Your task to perform on an android device: see creations saved in the google photos Image 0: 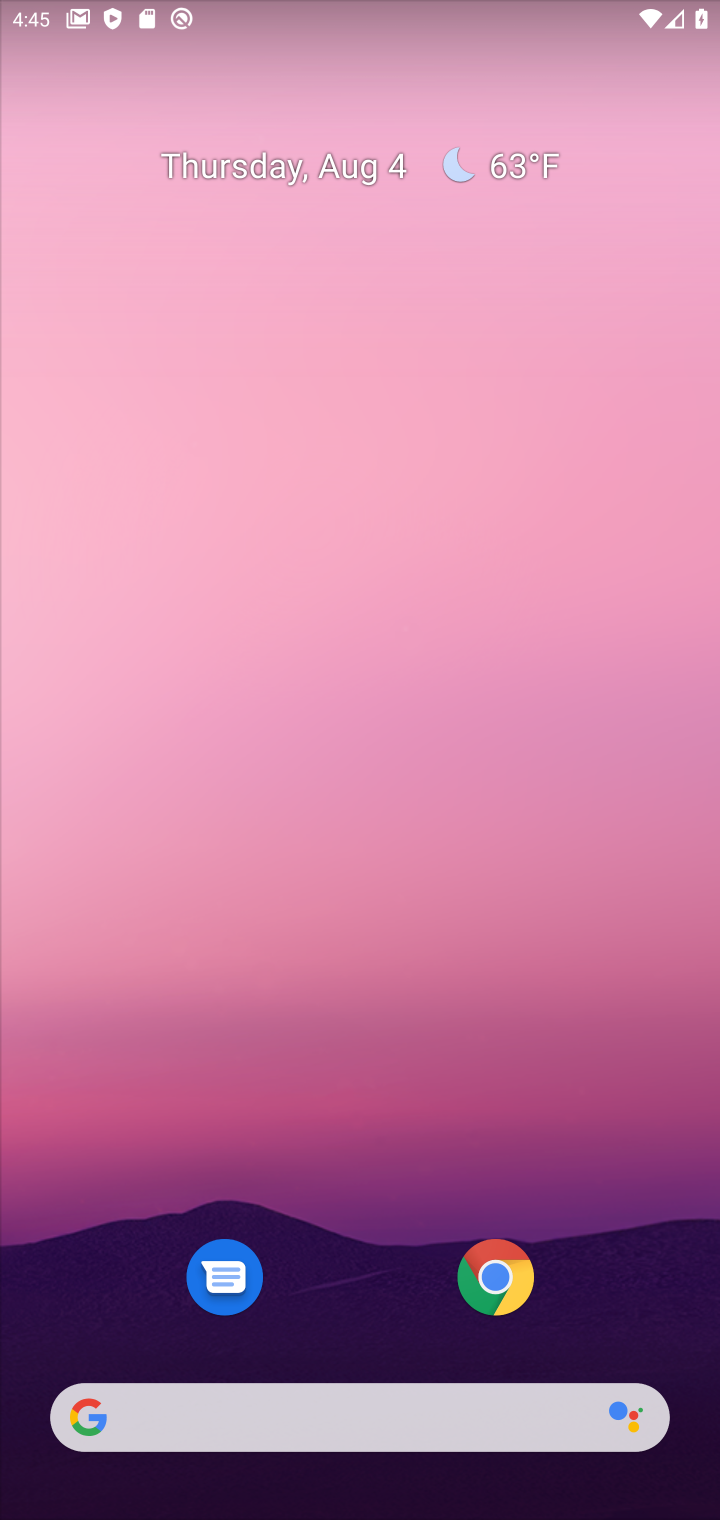
Step 0: drag from (194, 1098) to (440, 1)
Your task to perform on an android device: see creations saved in the google photos Image 1: 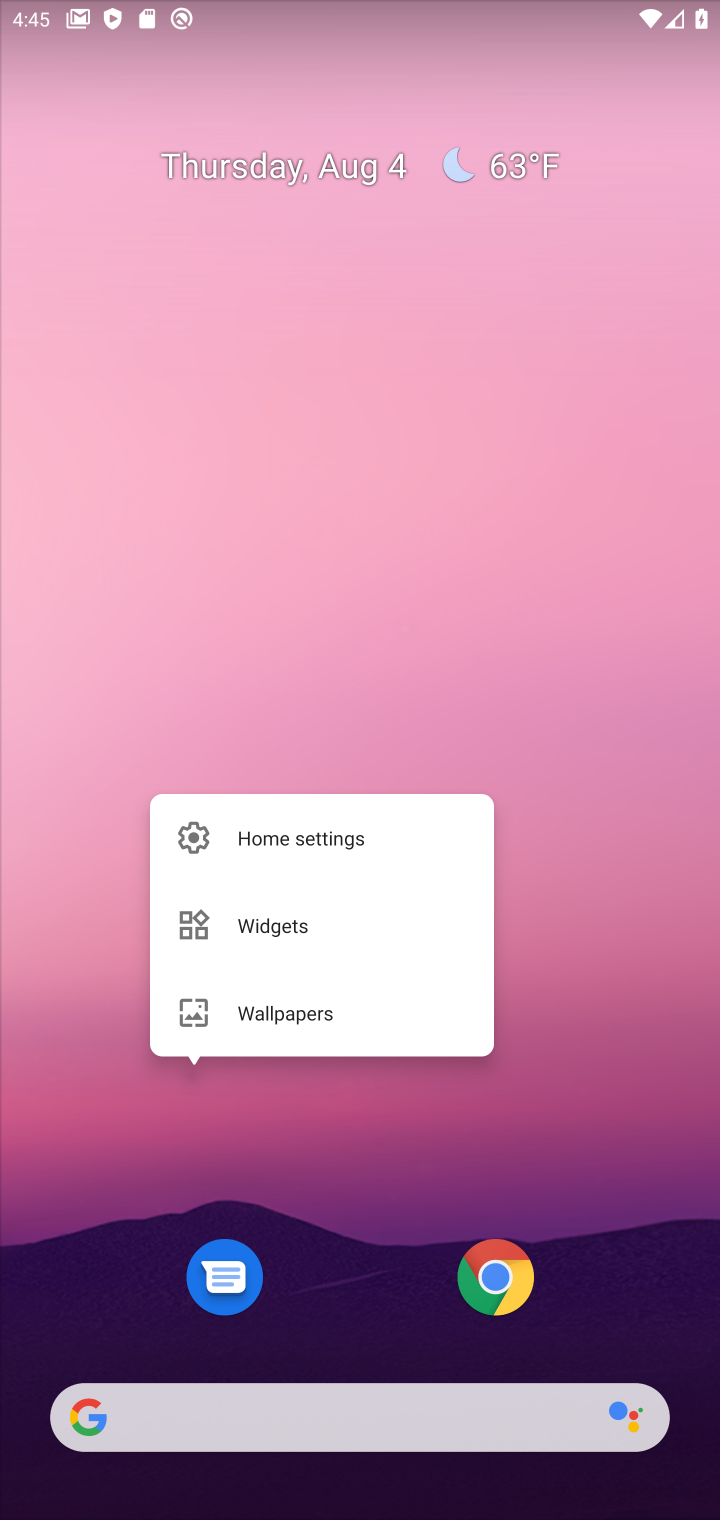
Step 1: drag from (596, 1105) to (678, 12)
Your task to perform on an android device: see creations saved in the google photos Image 2: 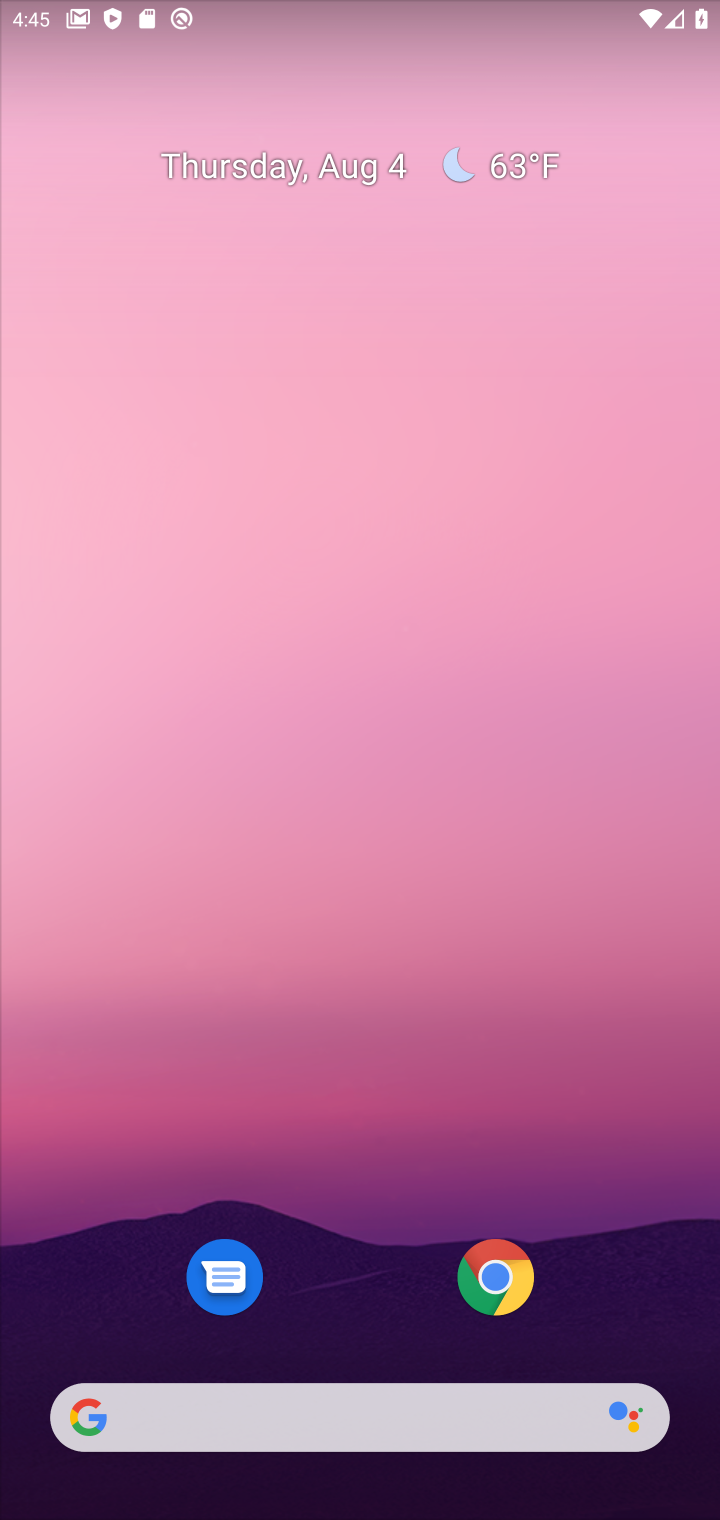
Step 2: drag from (434, 1188) to (507, 88)
Your task to perform on an android device: see creations saved in the google photos Image 3: 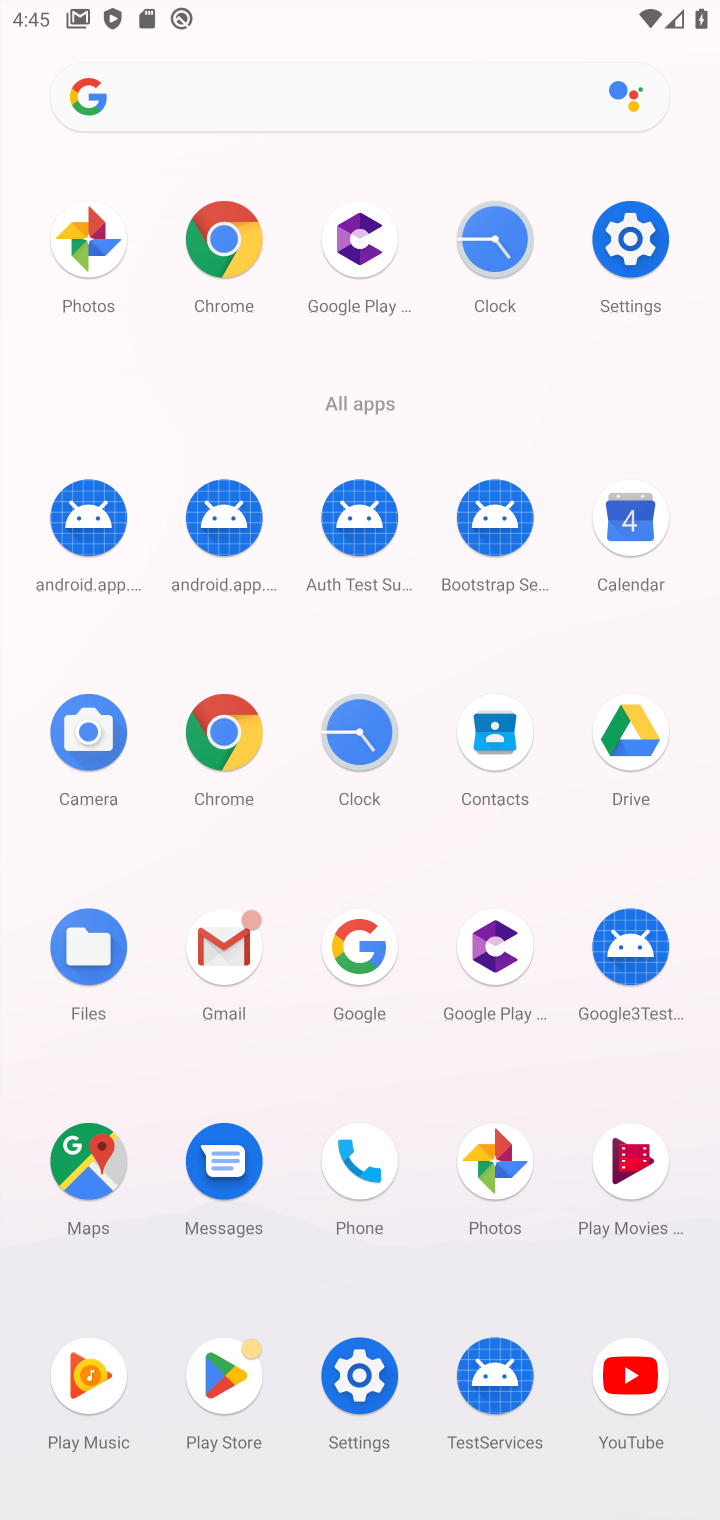
Step 3: click (474, 1137)
Your task to perform on an android device: see creations saved in the google photos Image 4: 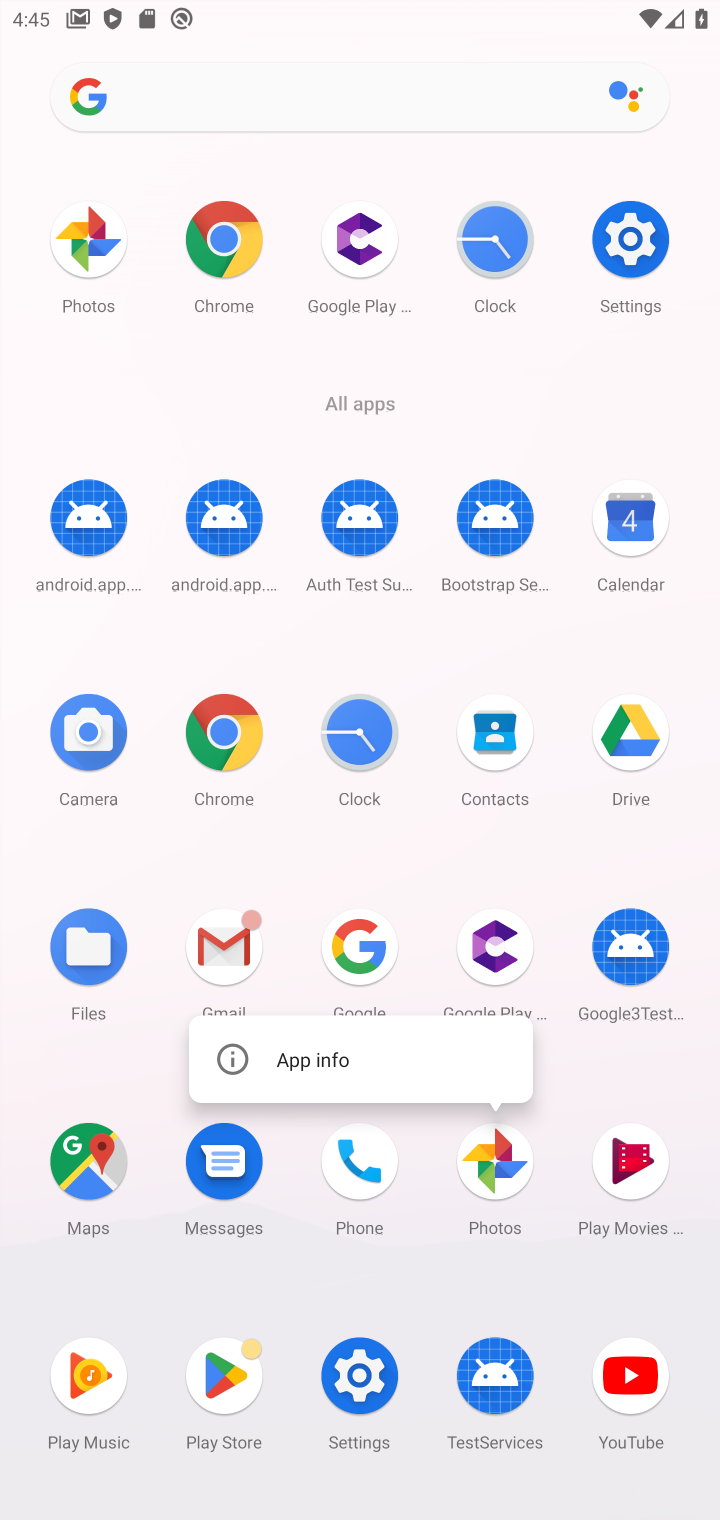
Step 4: click (489, 1175)
Your task to perform on an android device: see creations saved in the google photos Image 5: 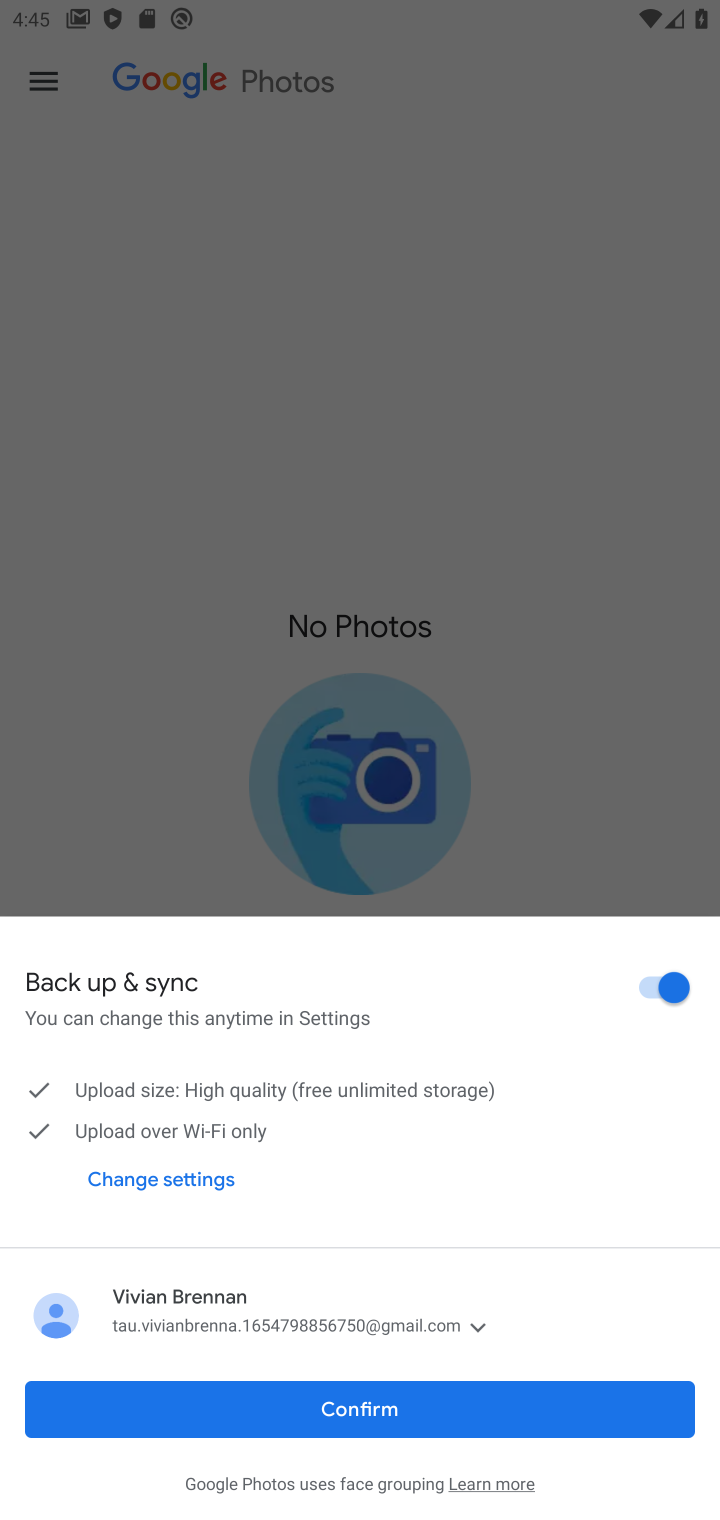
Step 5: click (345, 1416)
Your task to perform on an android device: see creations saved in the google photos Image 6: 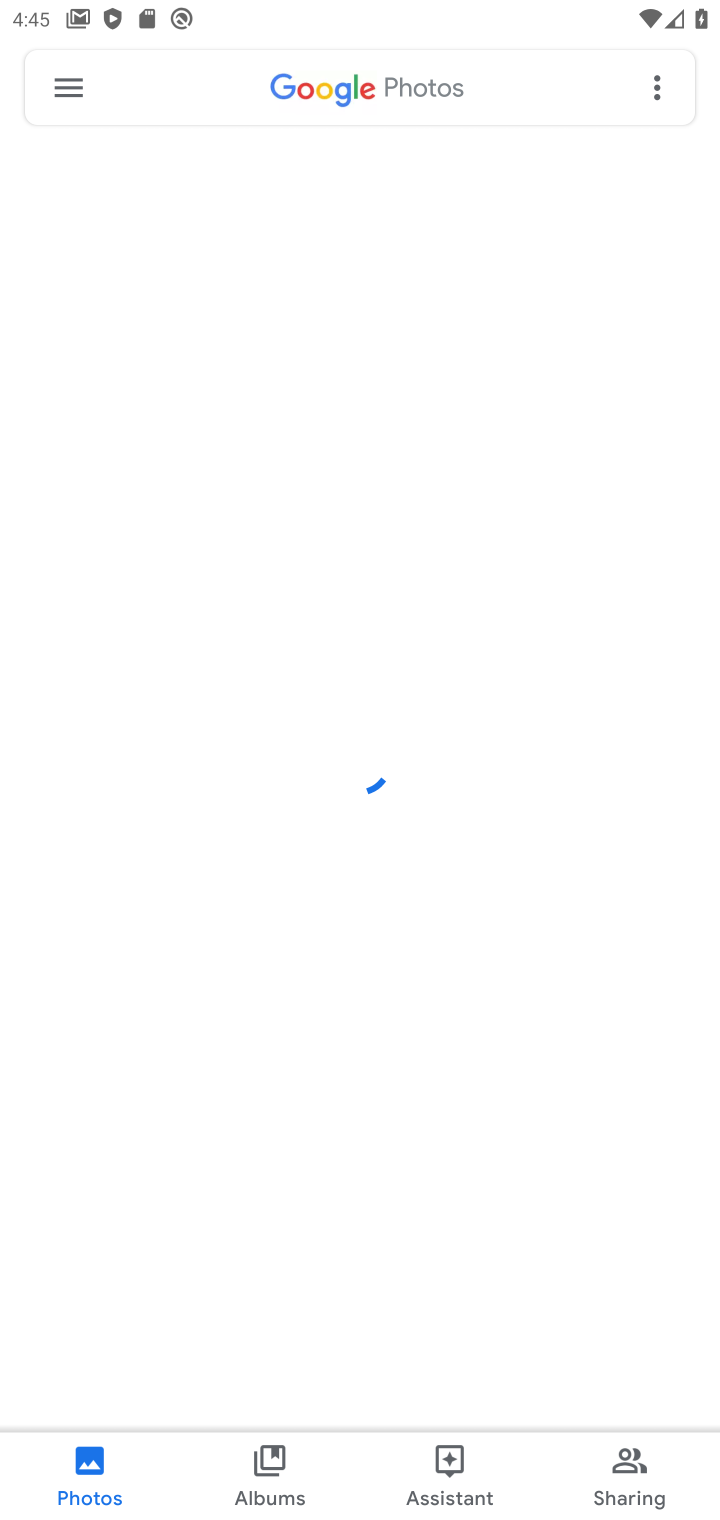
Step 6: click (267, 1496)
Your task to perform on an android device: see creations saved in the google photos Image 7: 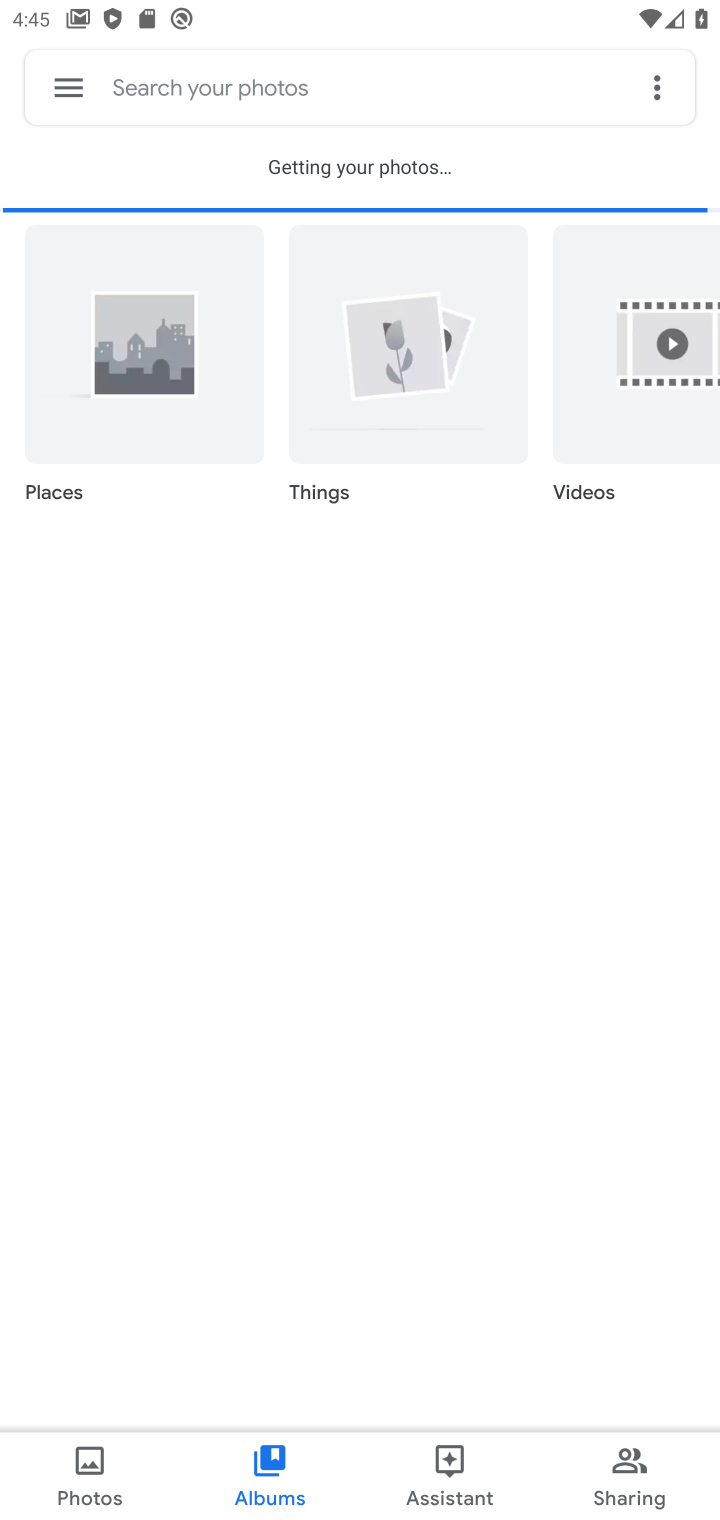
Step 7: task complete